Your task to perform on an android device: see creations saved in the google photos Image 0: 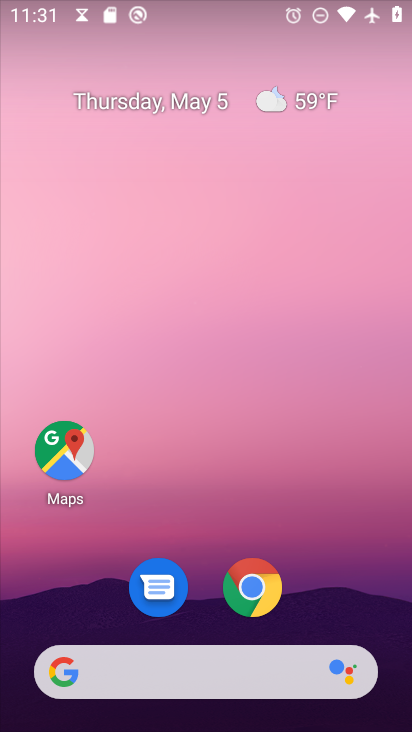
Step 0: drag from (374, 582) to (297, 36)
Your task to perform on an android device: see creations saved in the google photos Image 1: 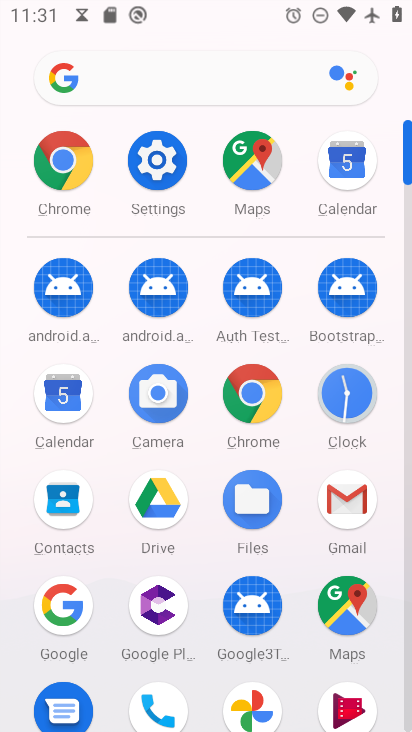
Step 1: drag from (15, 573) to (0, 149)
Your task to perform on an android device: see creations saved in the google photos Image 2: 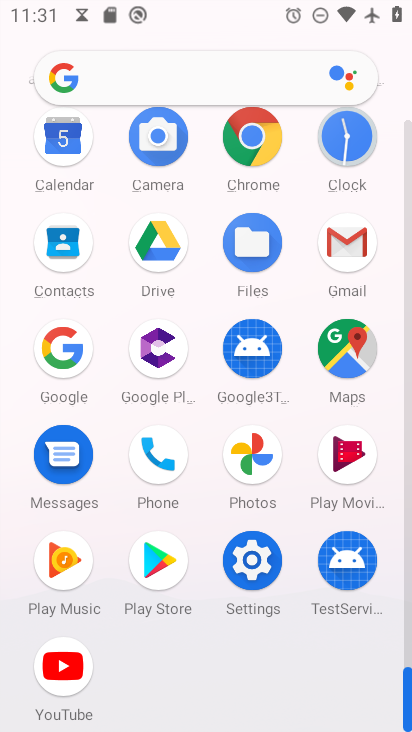
Step 2: click (249, 452)
Your task to perform on an android device: see creations saved in the google photos Image 3: 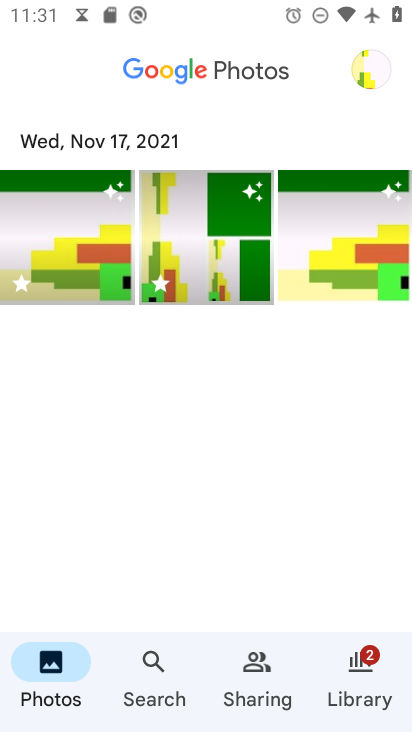
Step 3: task complete